Your task to perform on an android device: turn on translation in the chrome app Image 0: 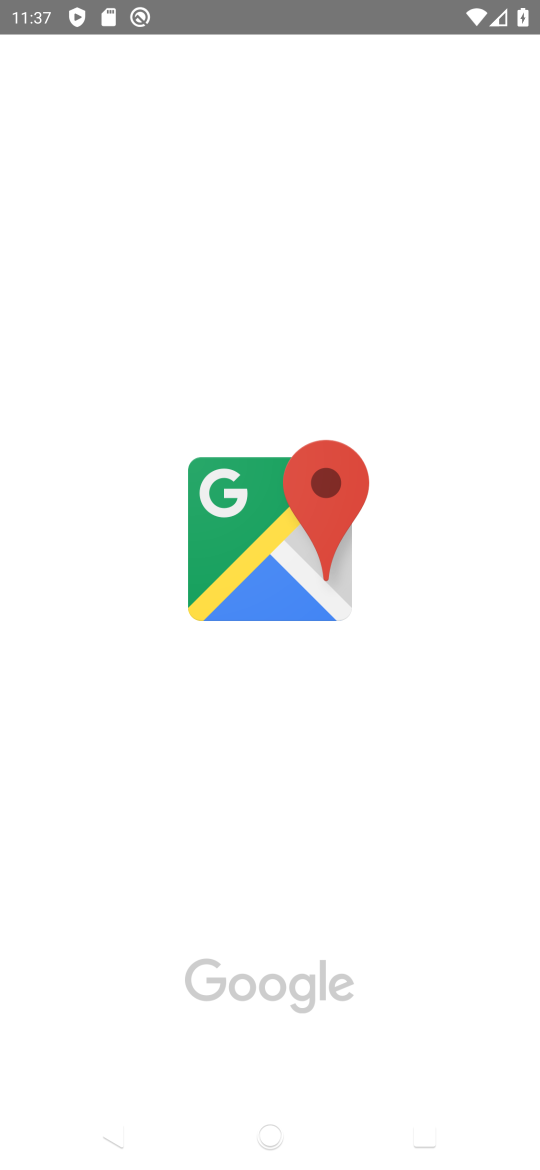
Step 0: press home button
Your task to perform on an android device: turn on translation in the chrome app Image 1: 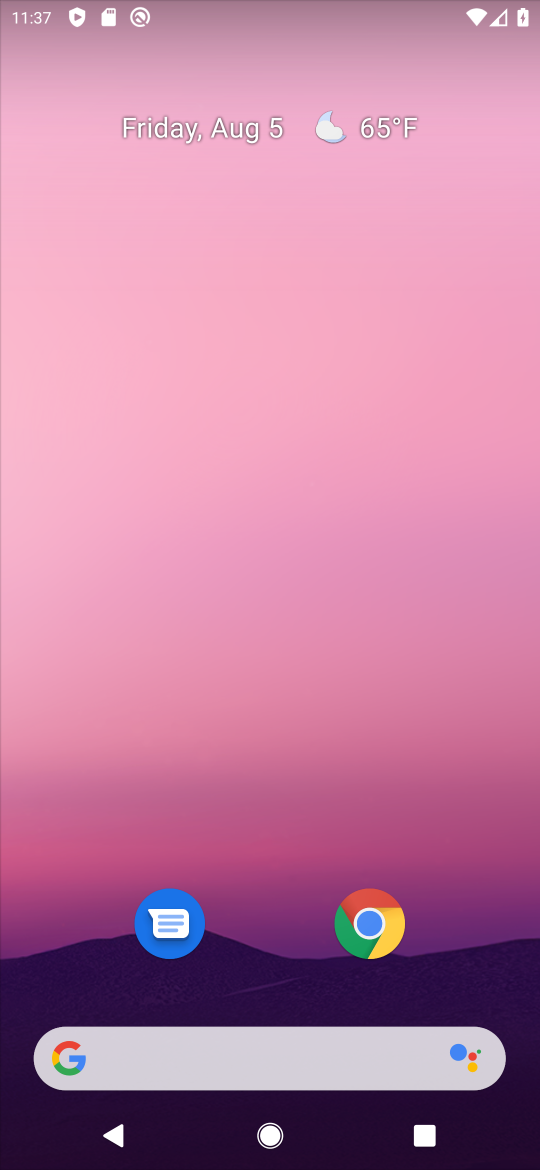
Step 1: drag from (458, 956) to (350, 291)
Your task to perform on an android device: turn on translation in the chrome app Image 2: 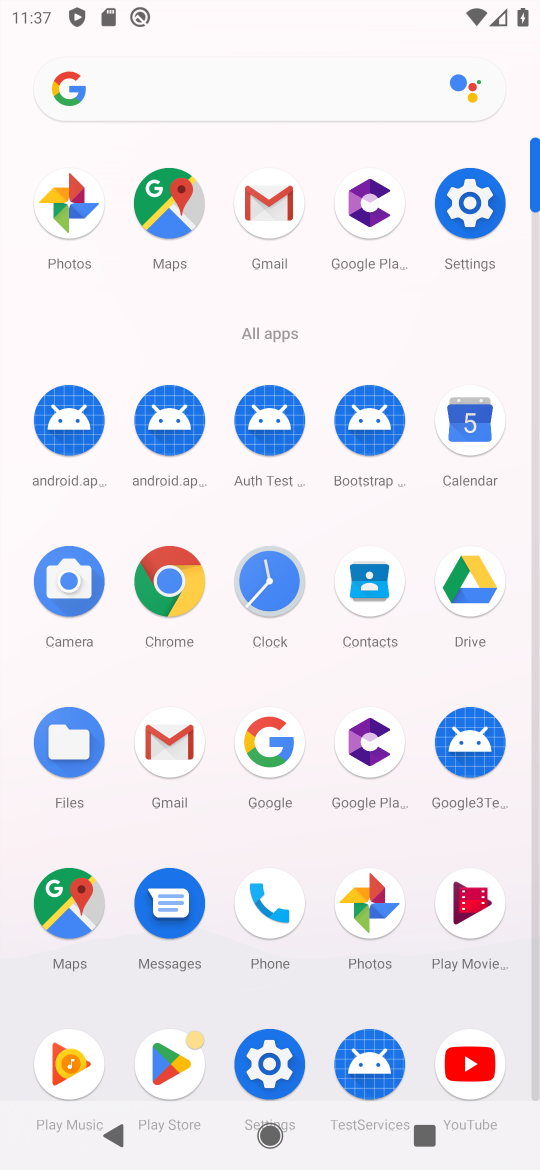
Step 2: click (464, 208)
Your task to perform on an android device: turn on translation in the chrome app Image 3: 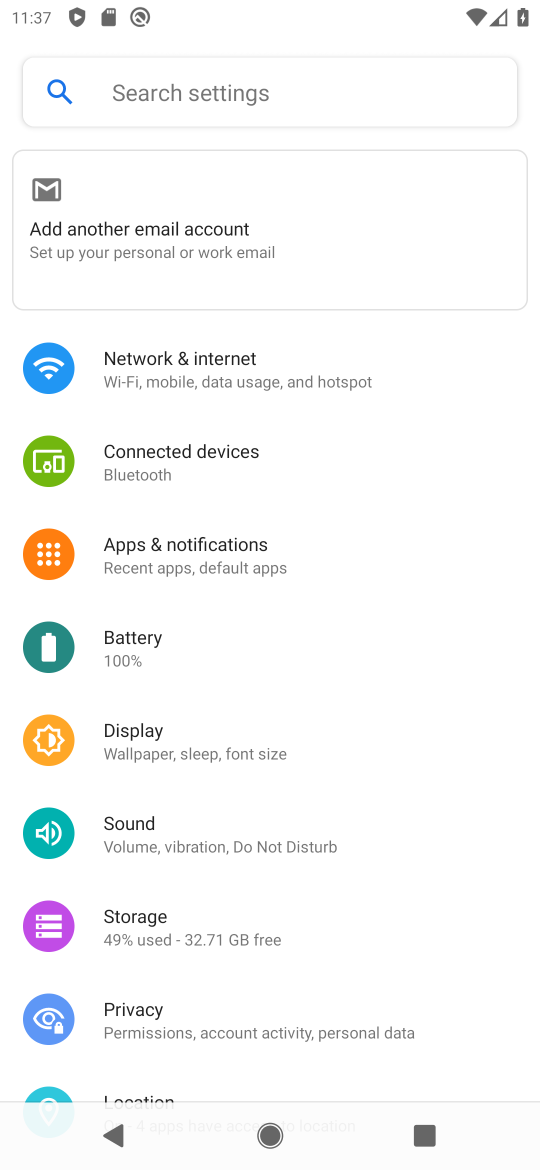
Step 3: press home button
Your task to perform on an android device: turn on translation in the chrome app Image 4: 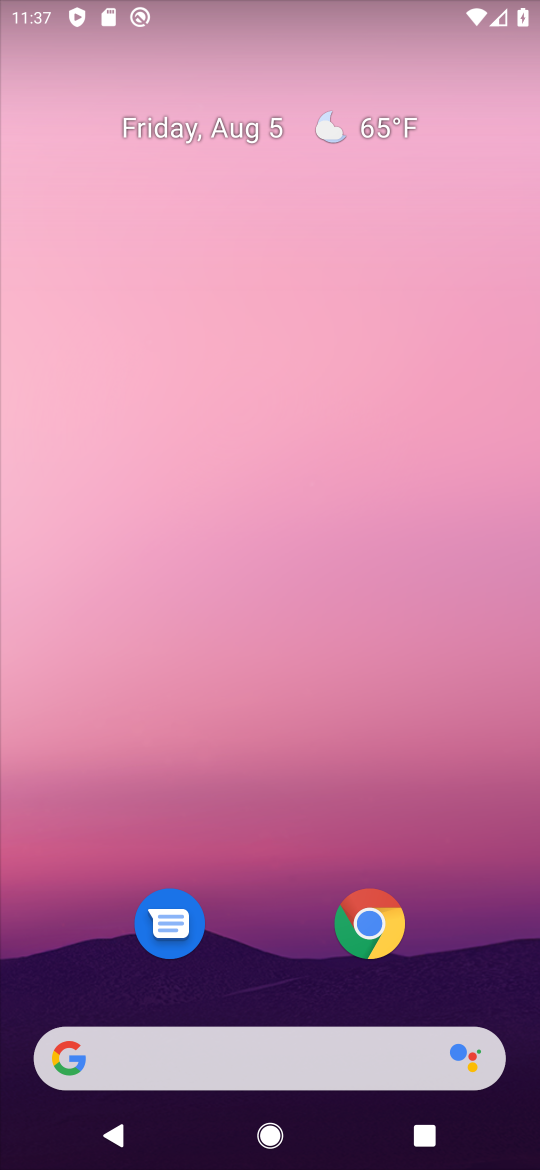
Step 4: click (372, 912)
Your task to perform on an android device: turn on translation in the chrome app Image 5: 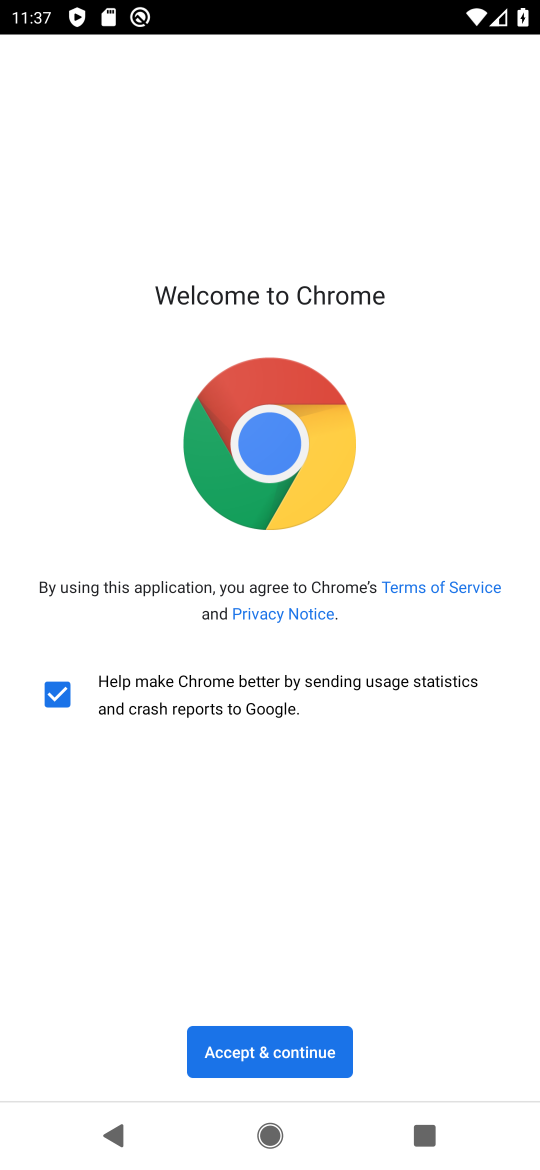
Step 5: click (291, 1054)
Your task to perform on an android device: turn on translation in the chrome app Image 6: 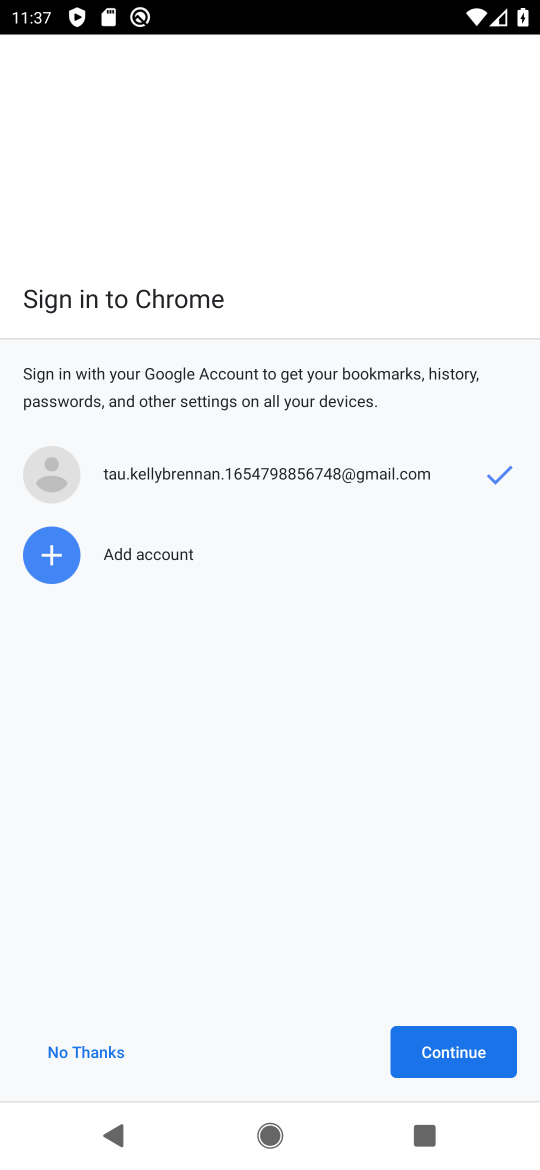
Step 6: click (490, 1055)
Your task to perform on an android device: turn on translation in the chrome app Image 7: 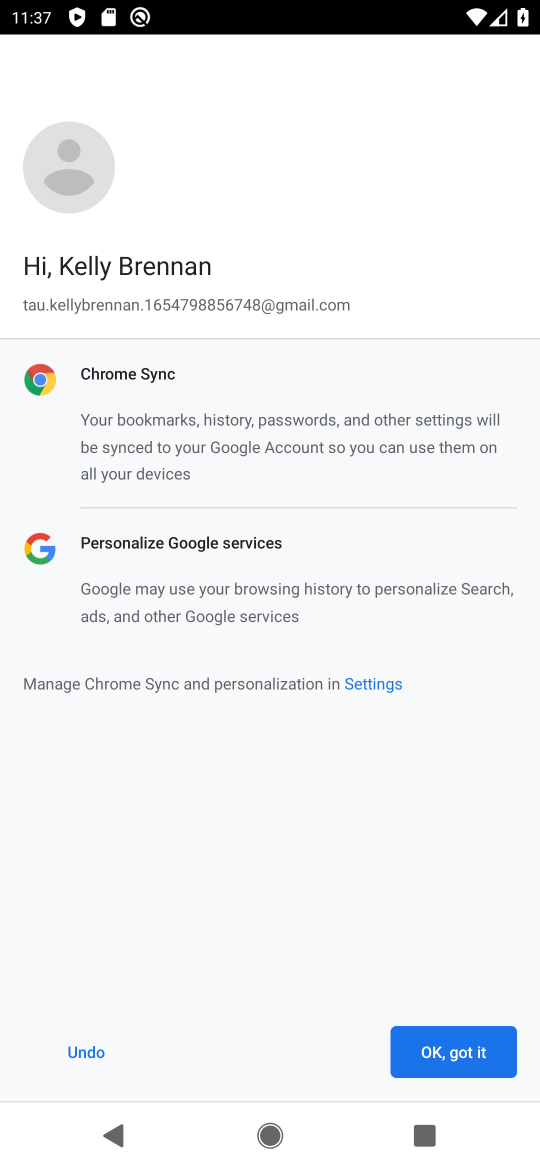
Step 7: click (490, 1057)
Your task to perform on an android device: turn on translation in the chrome app Image 8: 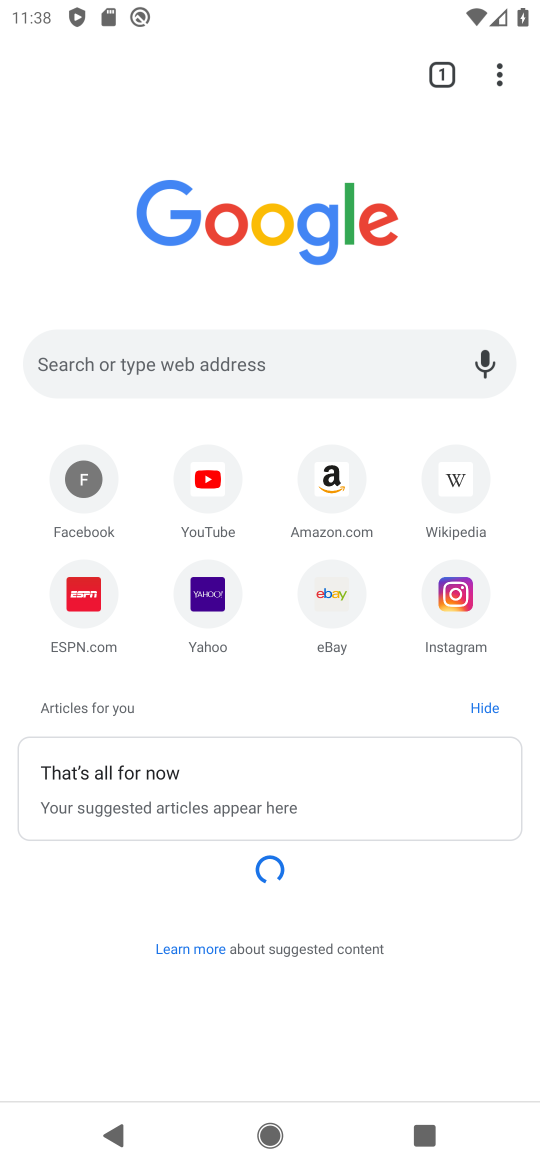
Step 8: click (497, 86)
Your task to perform on an android device: turn on translation in the chrome app Image 9: 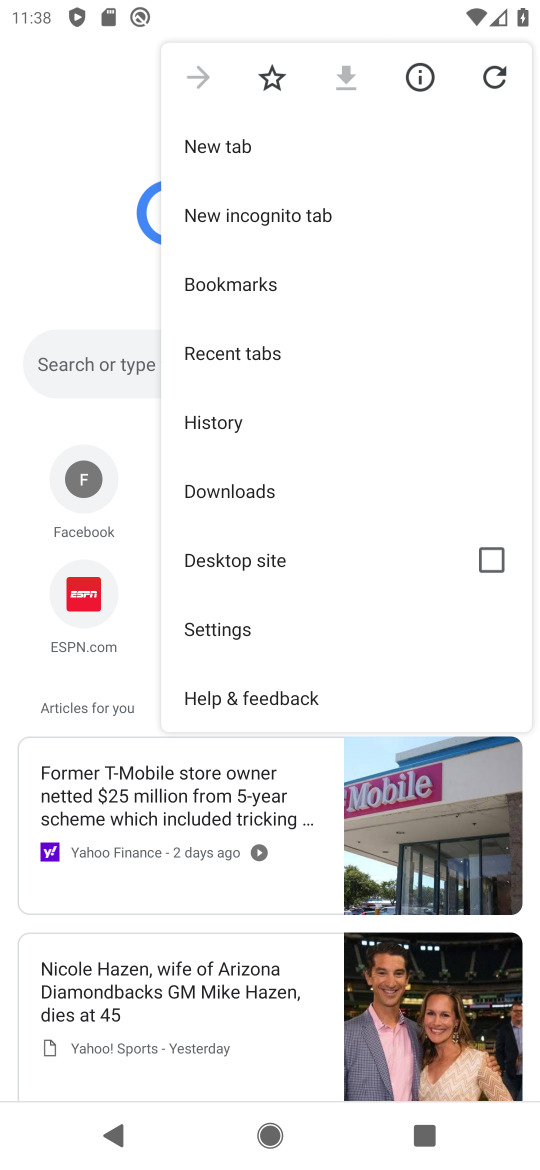
Step 9: click (258, 635)
Your task to perform on an android device: turn on translation in the chrome app Image 10: 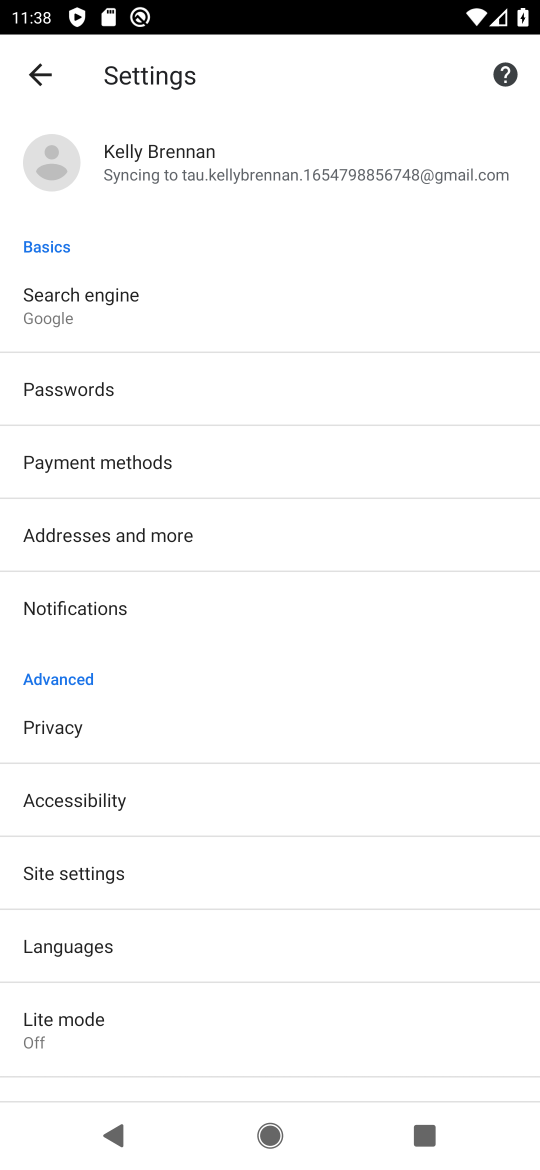
Step 10: click (185, 938)
Your task to perform on an android device: turn on translation in the chrome app Image 11: 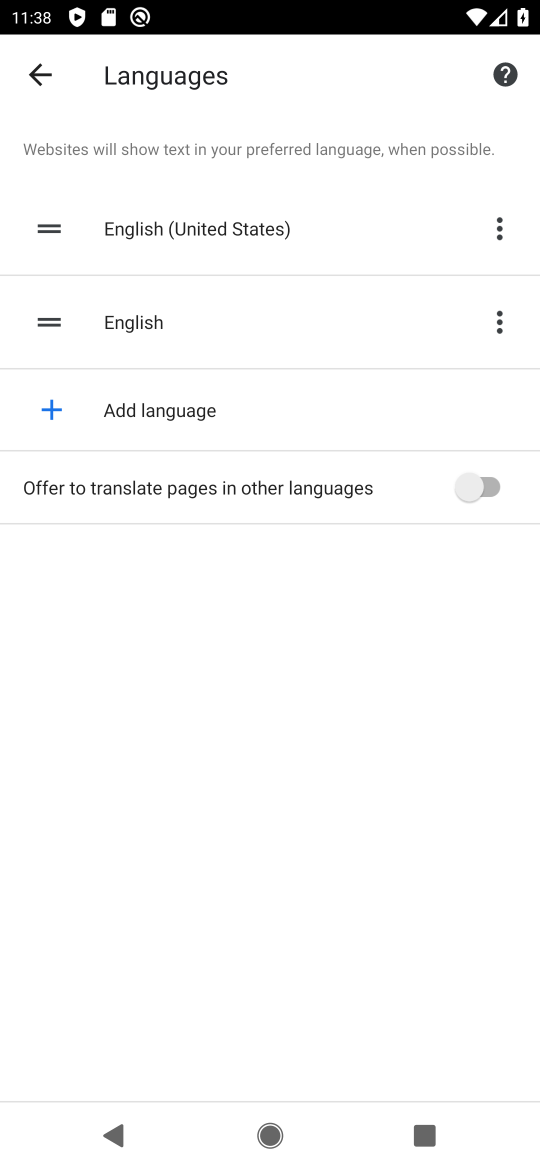
Step 11: click (493, 477)
Your task to perform on an android device: turn on translation in the chrome app Image 12: 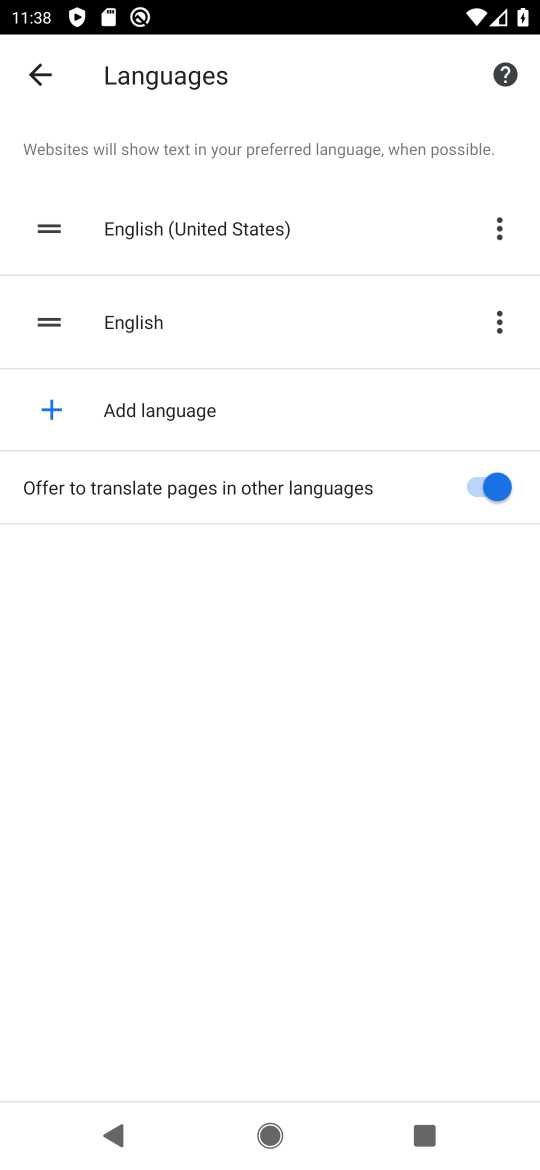
Step 12: task complete